Your task to perform on an android device: Show me popular games on the Play Store Image 0: 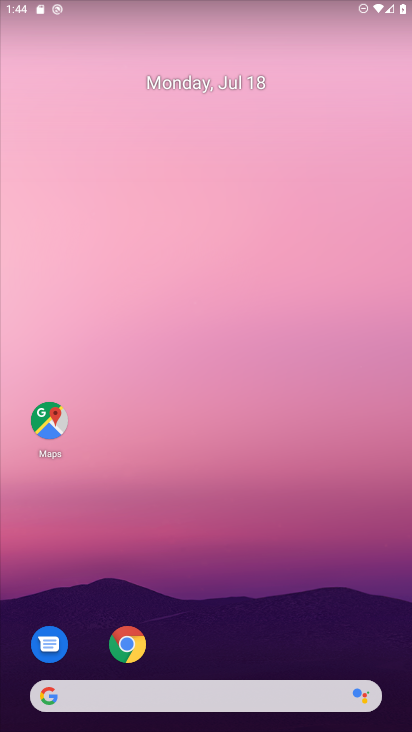
Step 0: drag from (239, 623) to (254, 1)
Your task to perform on an android device: Show me popular games on the Play Store Image 1: 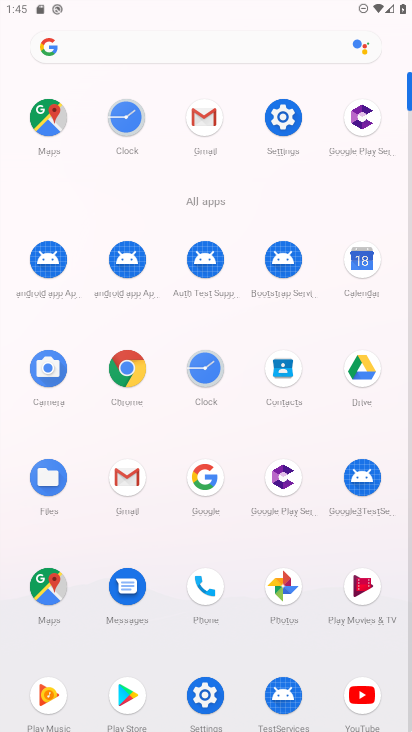
Step 1: click (128, 693)
Your task to perform on an android device: Show me popular games on the Play Store Image 2: 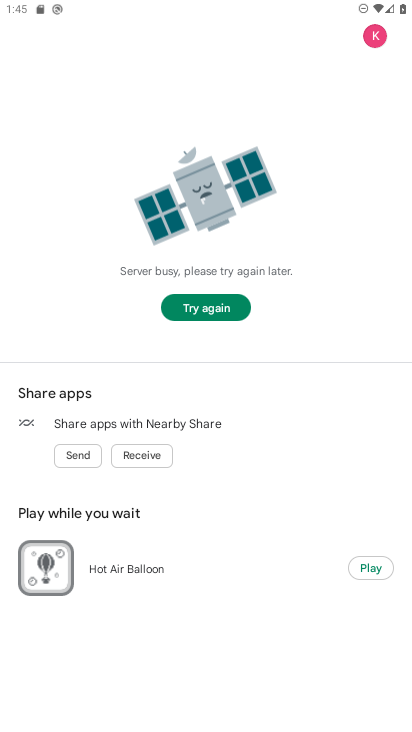
Step 2: click (223, 304)
Your task to perform on an android device: Show me popular games on the Play Store Image 3: 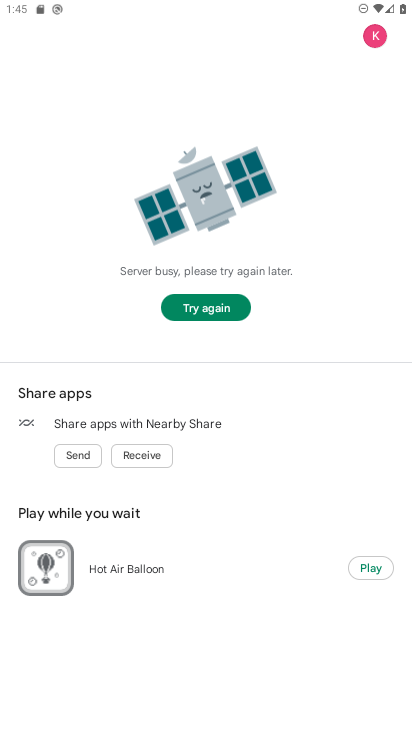
Step 3: task complete